Your task to perform on an android device: Open Google Maps and go to "Timeline" Image 0: 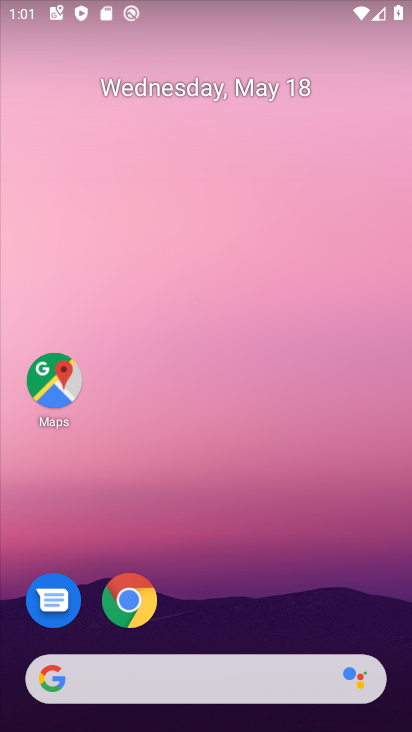
Step 0: click (52, 382)
Your task to perform on an android device: Open Google Maps and go to "Timeline" Image 1: 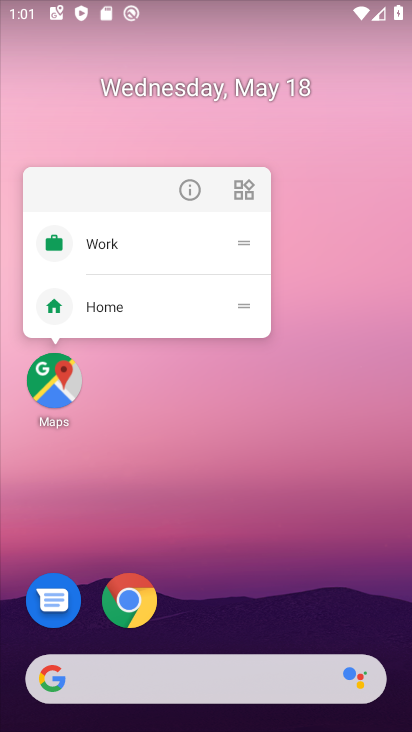
Step 1: click (52, 382)
Your task to perform on an android device: Open Google Maps and go to "Timeline" Image 2: 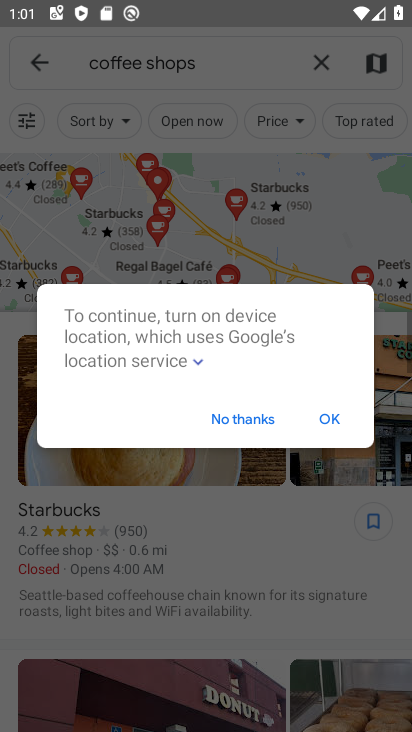
Step 2: click (319, 56)
Your task to perform on an android device: Open Google Maps and go to "Timeline" Image 3: 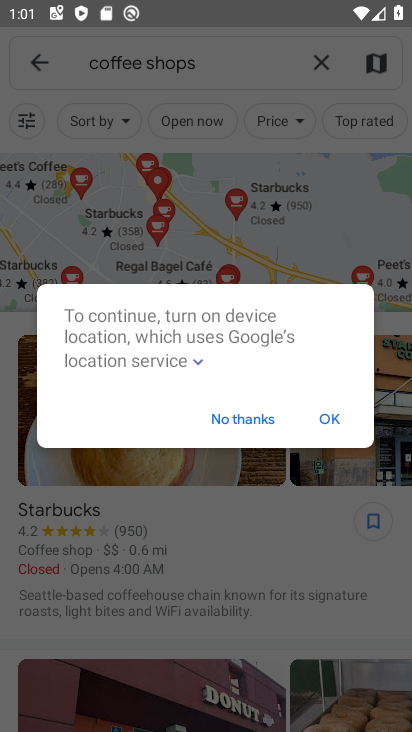
Step 3: click (330, 424)
Your task to perform on an android device: Open Google Maps and go to "Timeline" Image 4: 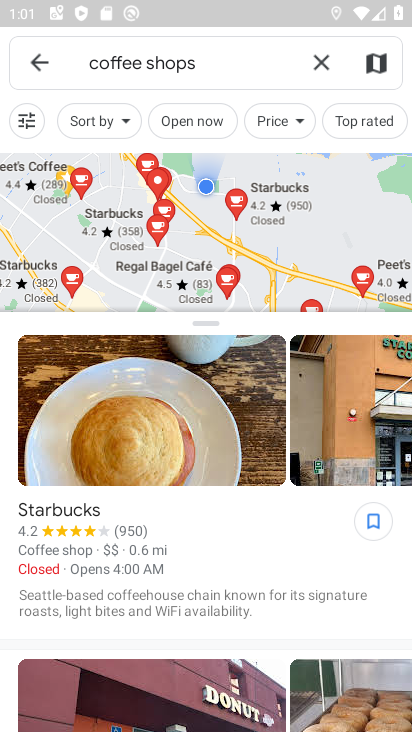
Step 4: click (320, 57)
Your task to perform on an android device: Open Google Maps and go to "Timeline" Image 5: 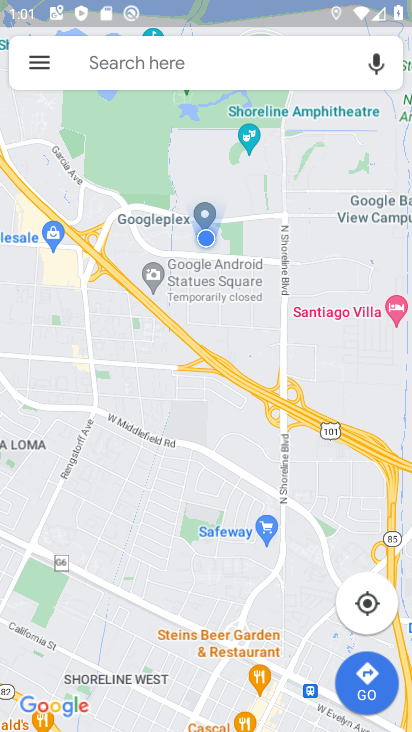
Step 5: click (36, 60)
Your task to perform on an android device: Open Google Maps and go to "Timeline" Image 6: 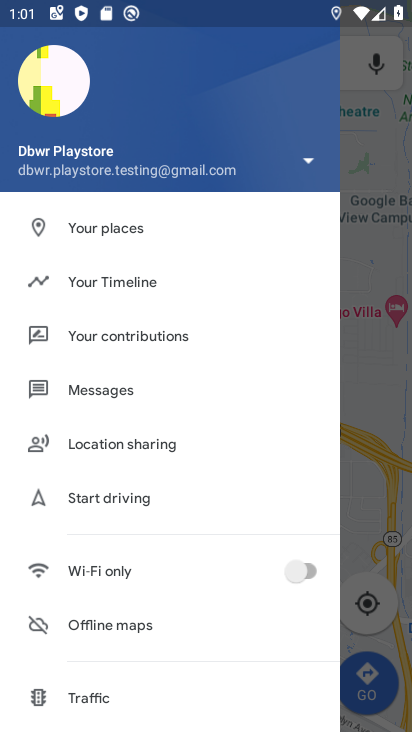
Step 6: click (81, 277)
Your task to perform on an android device: Open Google Maps and go to "Timeline" Image 7: 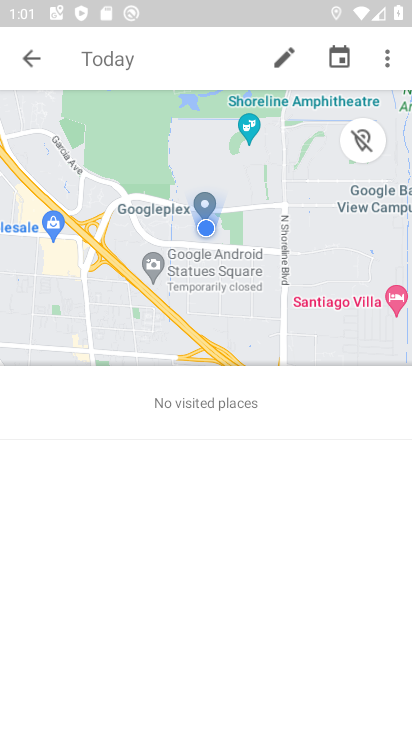
Step 7: task complete